Your task to perform on an android device: turn off improve location accuracy Image 0: 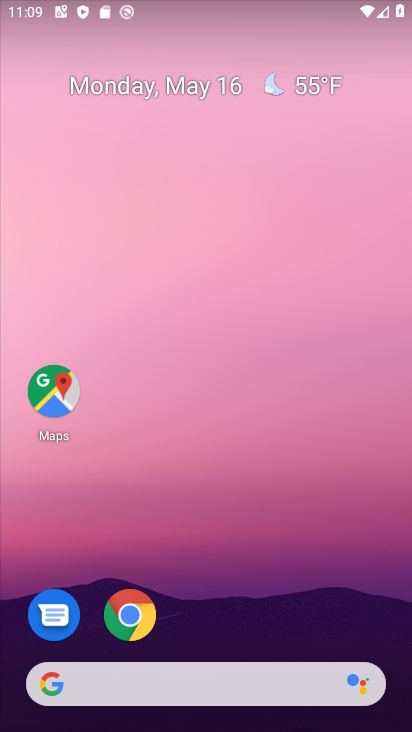
Step 0: click (218, 622)
Your task to perform on an android device: turn off improve location accuracy Image 1: 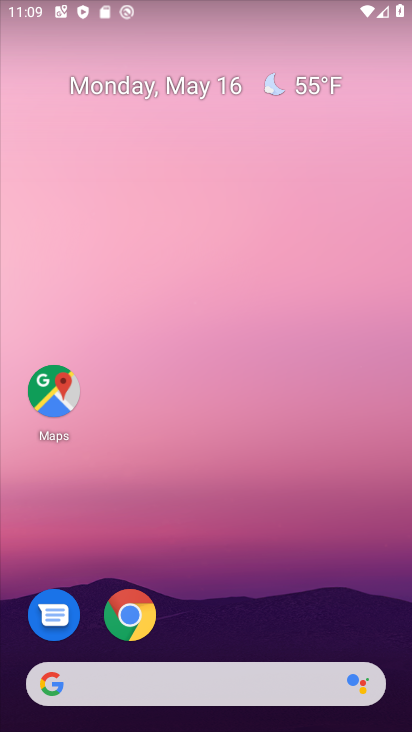
Step 1: click (49, 392)
Your task to perform on an android device: turn off improve location accuracy Image 2: 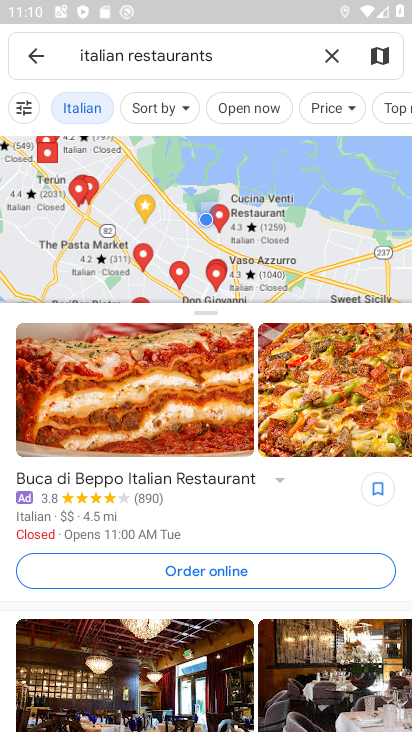
Step 2: click (334, 56)
Your task to perform on an android device: turn off improve location accuracy Image 3: 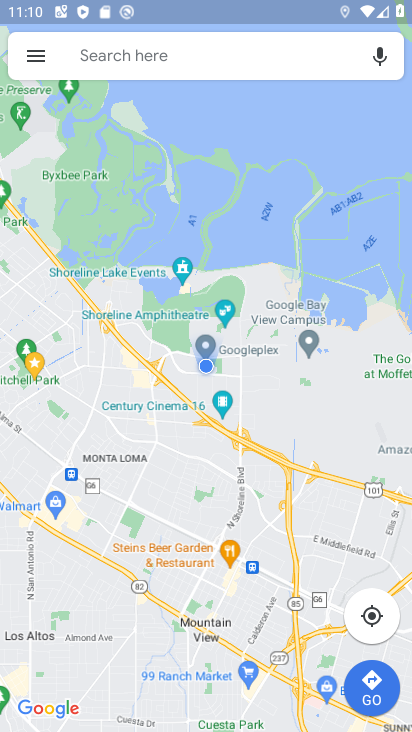
Step 3: press home button
Your task to perform on an android device: turn off improve location accuracy Image 4: 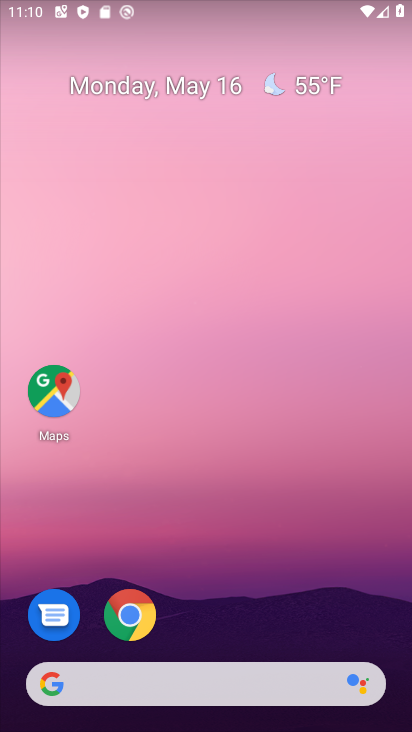
Step 4: drag from (245, 610) to (281, 65)
Your task to perform on an android device: turn off improve location accuracy Image 5: 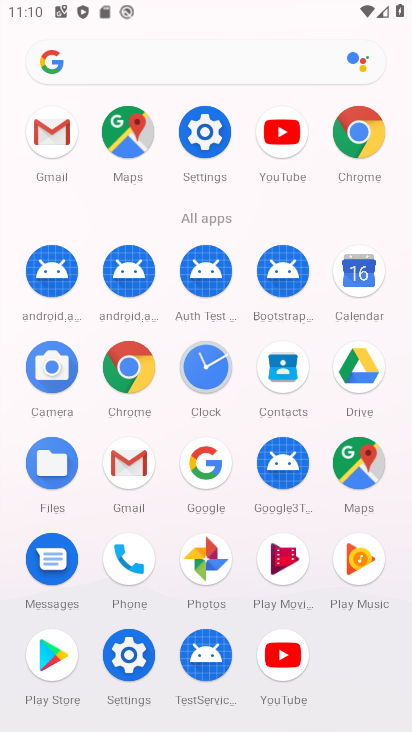
Step 5: click (207, 141)
Your task to perform on an android device: turn off improve location accuracy Image 6: 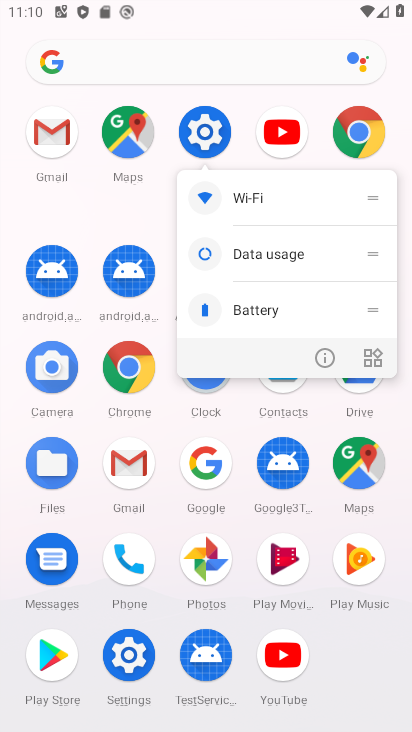
Step 6: click (211, 129)
Your task to perform on an android device: turn off improve location accuracy Image 7: 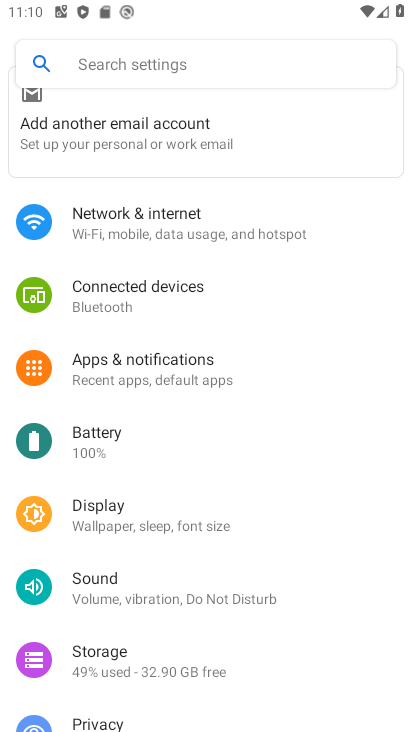
Step 7: drag from (278, 652) to (281, 309)
Your task to perform on an android device: turn off improve location accuracy Image 8: 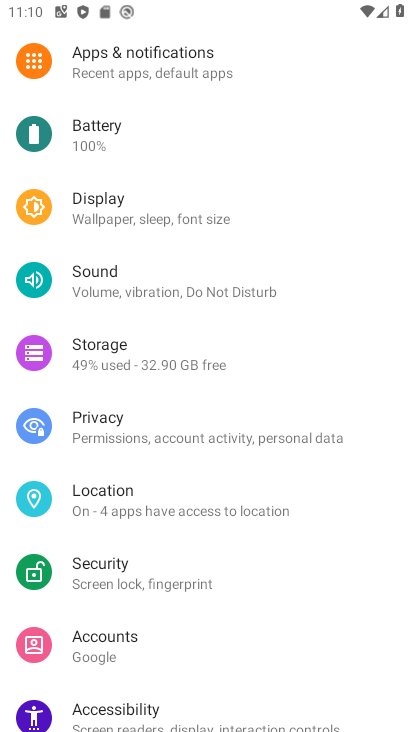
Step 8: drag from (270, 667) to (279, 594)
Your task to perform on an android device: turn off improve location accuracy Image 9: 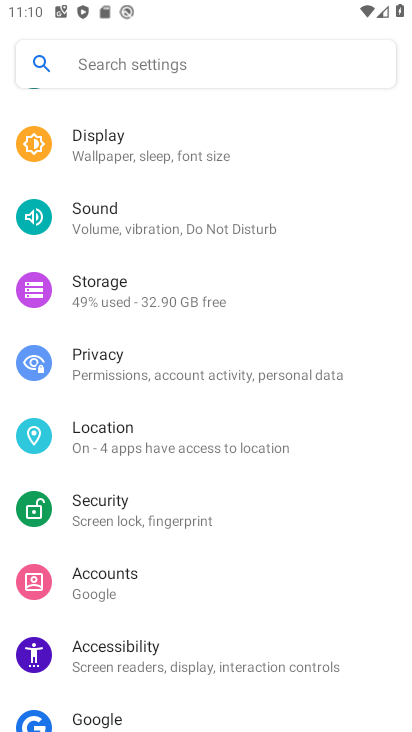
Step 9: click (135, 437)
Your task to perform on an android device: turn off improve location accuracy Image 10: 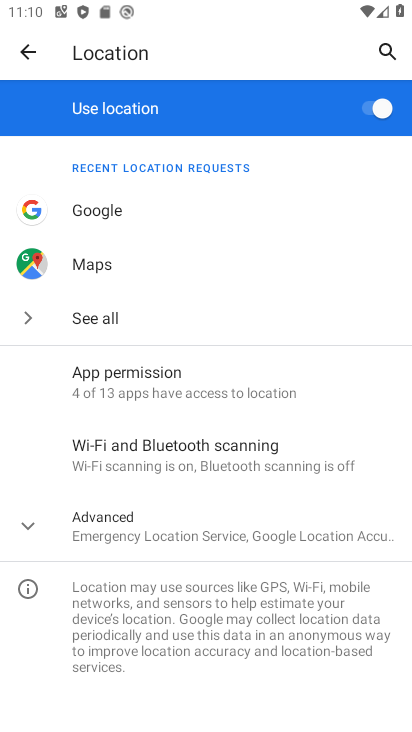
Step 10: click (217, 535)
Your task to perform on an android device: turn off improve location accuracy Image 11: 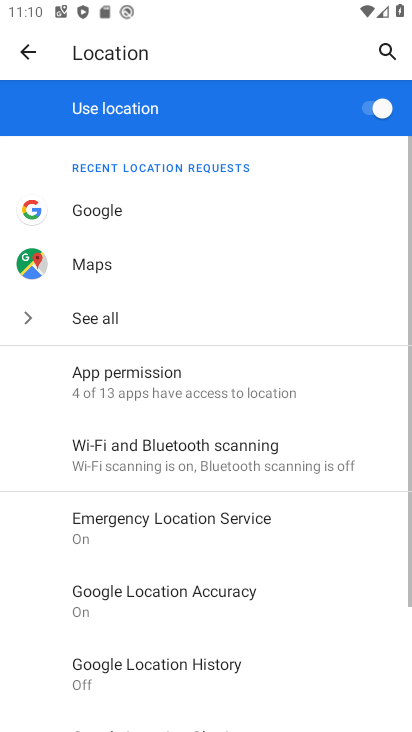
Step 11: drag from (231, 626) to (268, 362)
Your task to perform on an android device: turn off improve location accuracy Image 12: 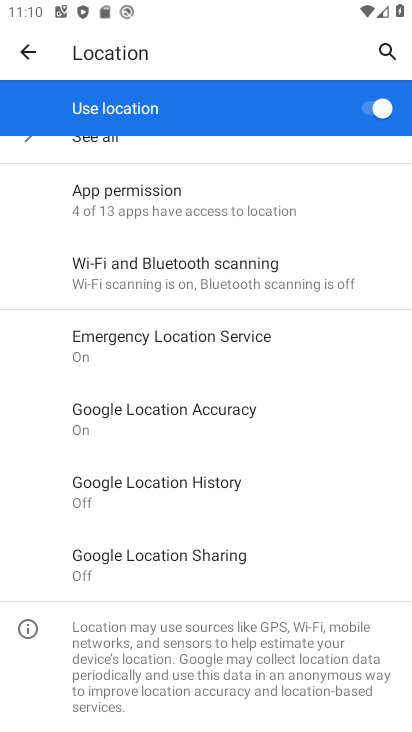
Step 12: drag from (286, 646) to (292, 418)
Your task to perform on an android device: turn off improve location accuracy Image 13: 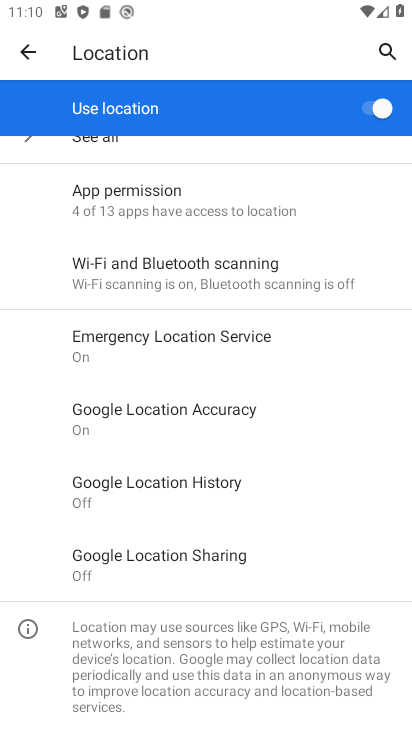
Step 13: click (85, 407)
Your task to perform on an android device: turn off improve location accuracy Image 14: 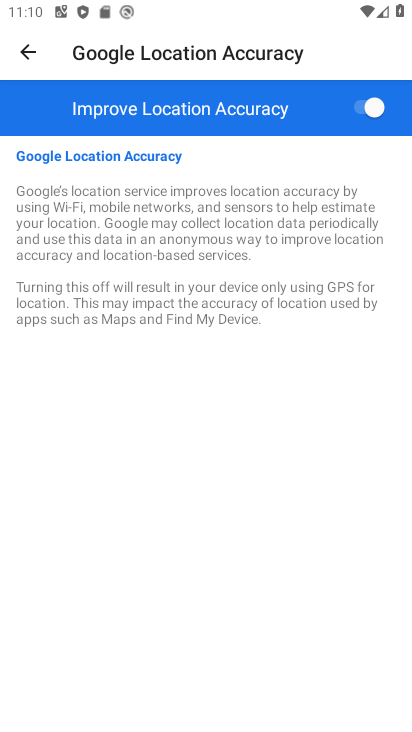
Step 14: click (366, 103)
Your task to perform on an android device: turn off improve location accuracy Image 15: 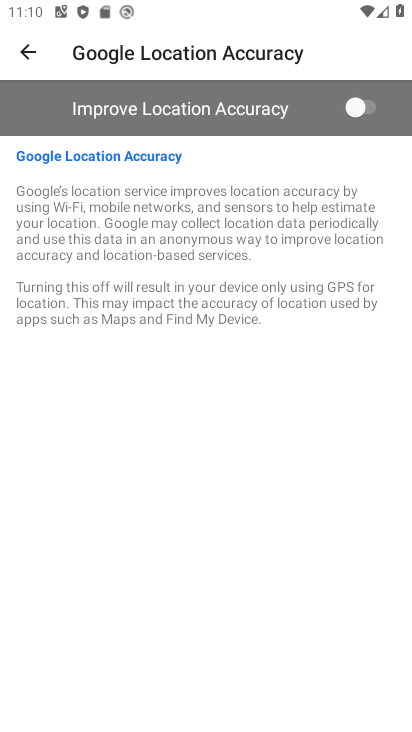
Step 15: task complete